Your task to perform on an android device: Go to settings Image 0: 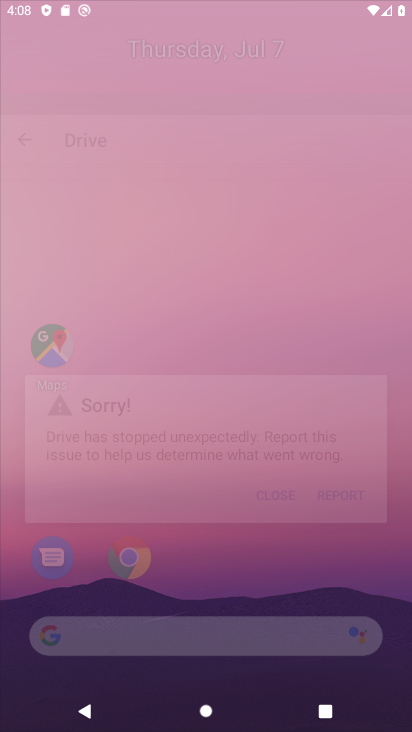
Step 0: click (245, 44)
Your task to perform on an android device: Go to settings Image 1: 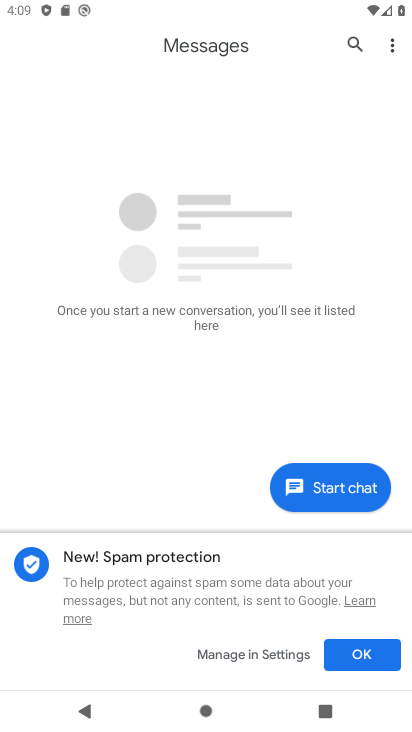
Step 1: press home button
Your task to perform on an android device: Go to settings Image 2: 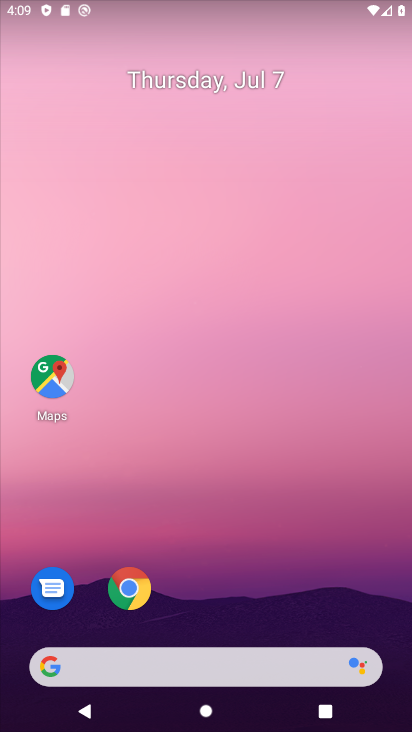
Step 2: drag from (283, 556) to (294, 0)
Your task to perform on an android device: Go to settings Image 3: 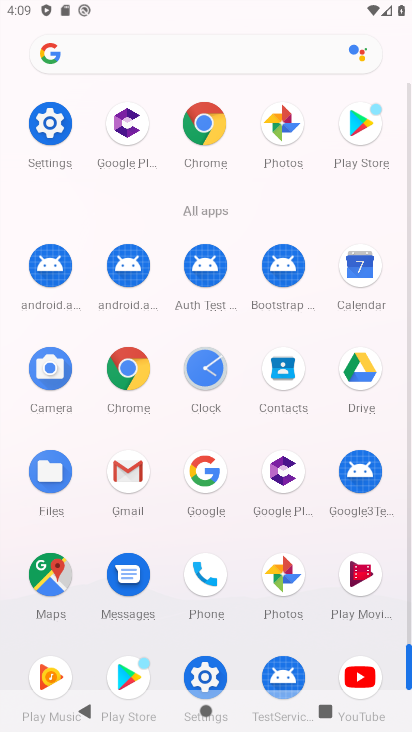
Step 3: click (46, 133)
Your task to perform on an android device: Go to settings Image 4: 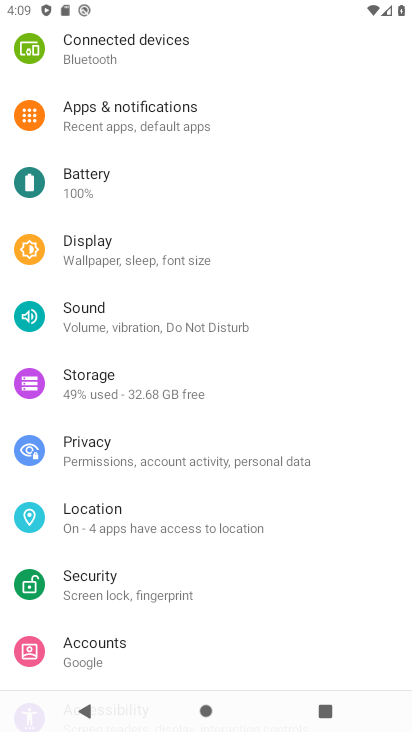
Step 4: task complete